Your task to perform on an android device: change the clock style Image 0: 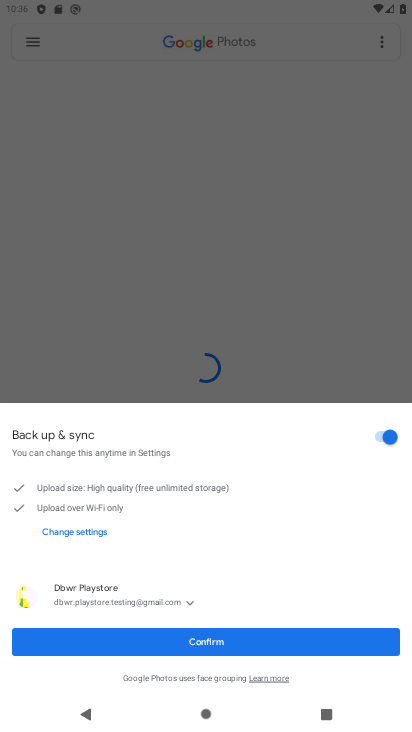
Step 0: press home button
Your task to perform on an android device: change the clock style Image 1: 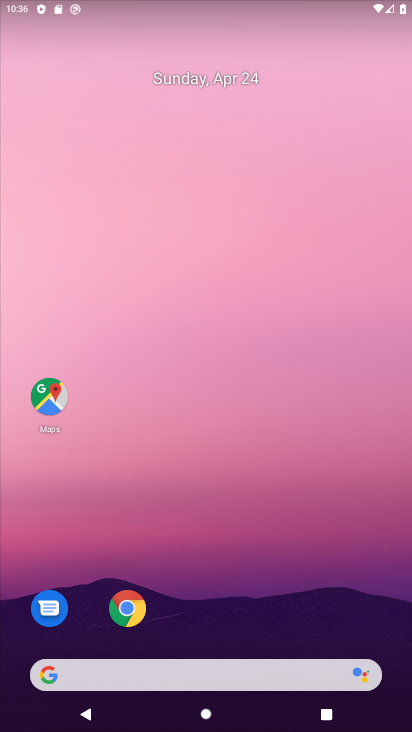
Step 1: drag from (363, 629) to (304, 108)
Your task to perform on an android device: change the clock style Image 2: 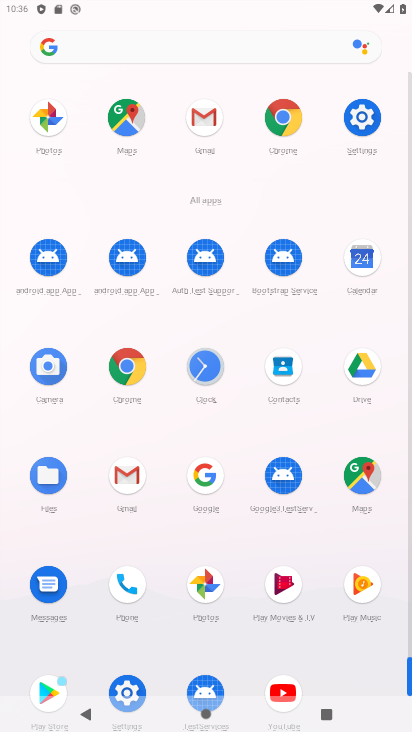
Step 2: click (206, 366)
Your task to perform on an android device: change the clock style Image 3: 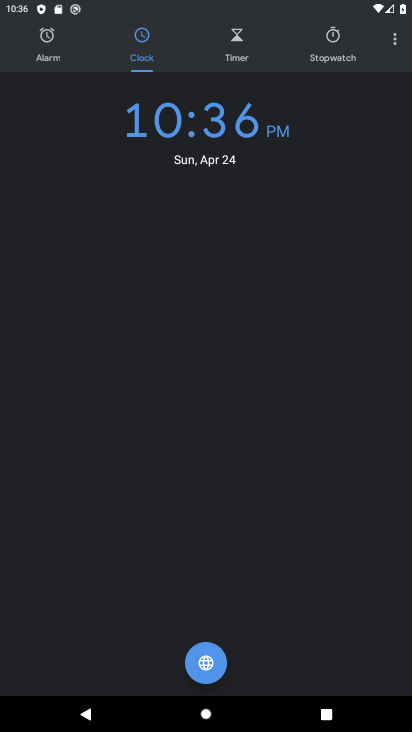
Step 3: click (394, 43)
Your task to perform on an android device: change the clock style Image 4: 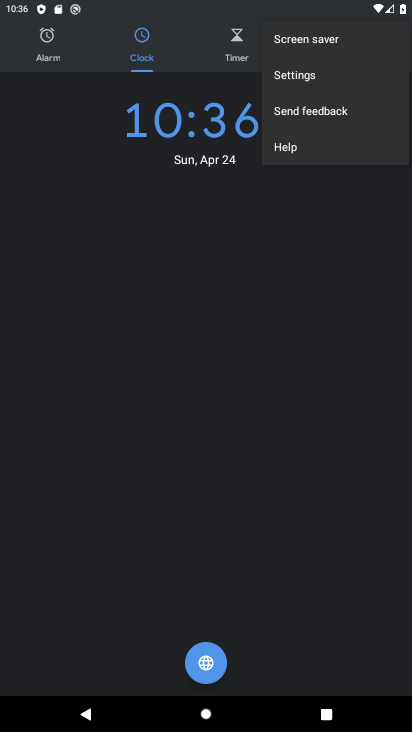
Step 4: click (281, 71)
Your task to perform on an android device: change the clock style Image 5: 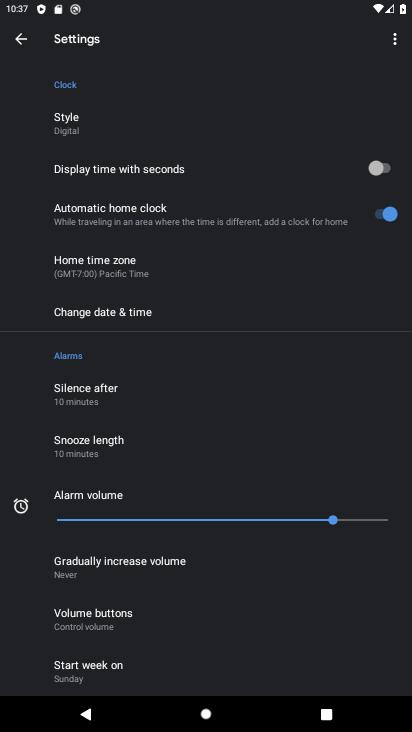
Step 5: click (62, 121)
Your task to perform on an android device: change the clock style Image 6: 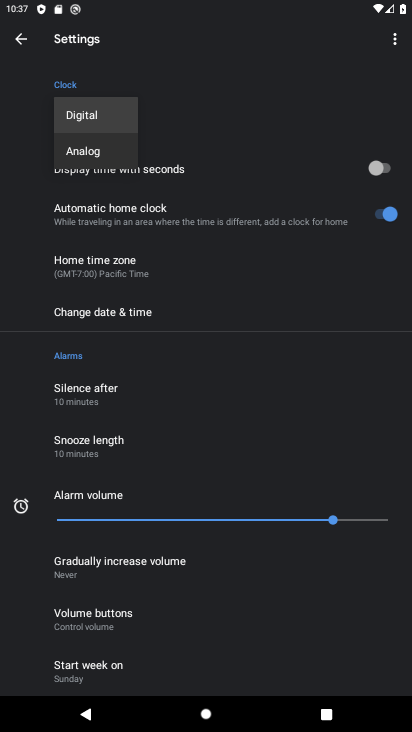
Step 6: click (76, 148)
Your task to perform on an android device: change the clock style Image 7: 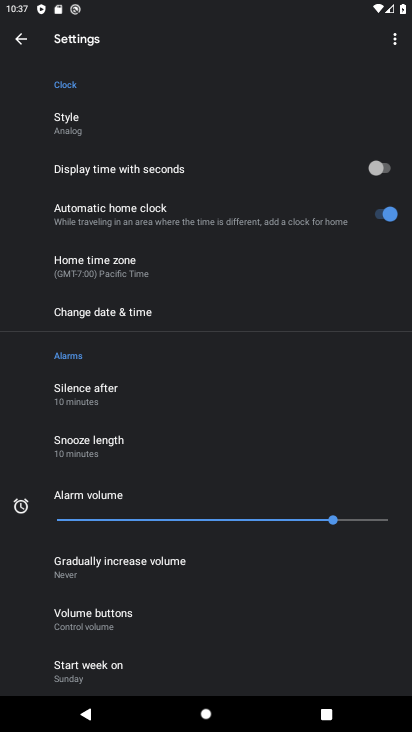
Step 7: task complete